Your task to perform on an android device: change notifications settings Image 0: 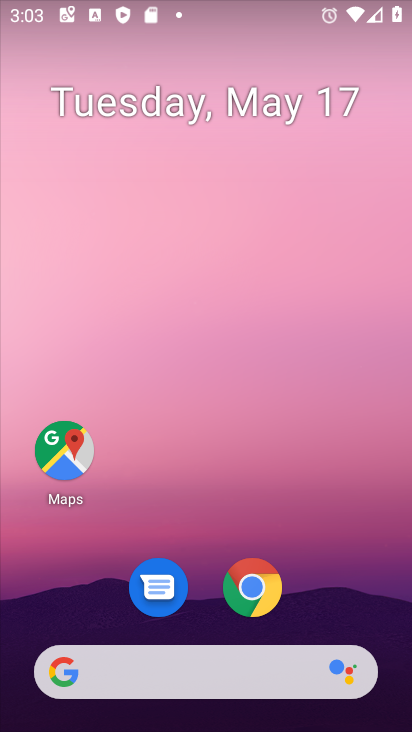
Step 0: drag from (216, 624) to (255, 153)
Your task to perform on an android device: change notifications settings Image 1: 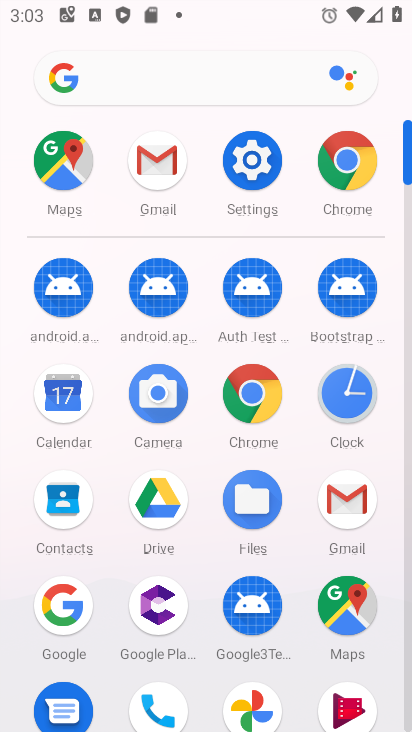
Step 1: click (246, 156)
Your task to perform on an android device: change notifications settings Image 2: 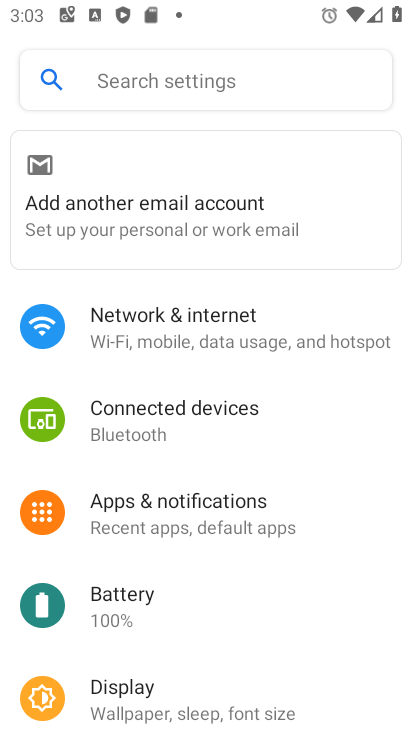
Step 2: click (194, 344)
Your task to perform on an android device: change notifications settings Image 3: 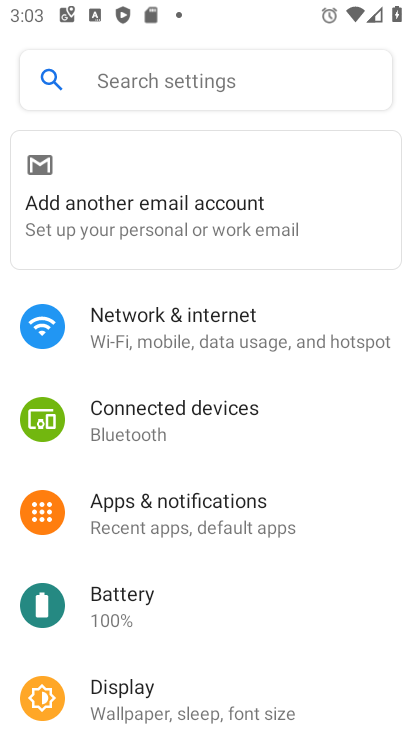
Step 3: click (193, 343)
Your task to perform on an android device: change notifications settings Image 4: 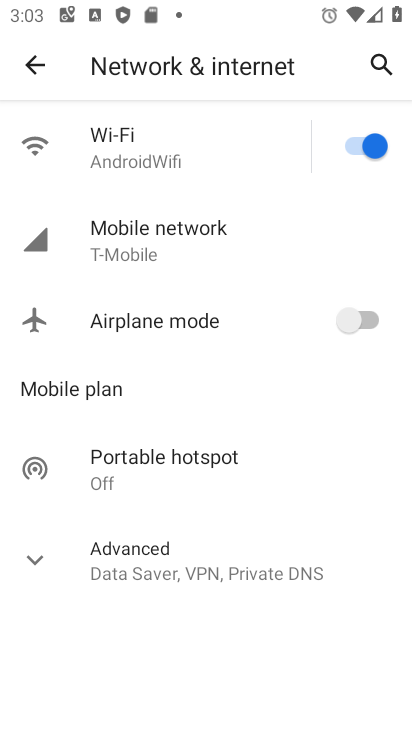
Step 4: click (35, 60)
Your task to perform on an android device: change notifications settings Image 5: 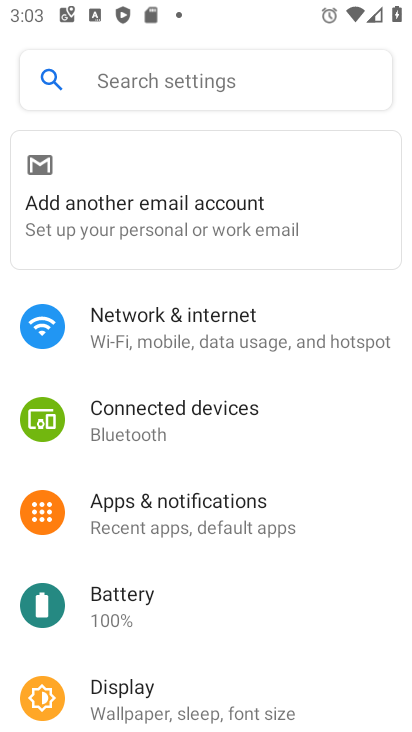
Step 5: click (229, 504)
Your task to perform on an android device: change notifications settings Image 6: 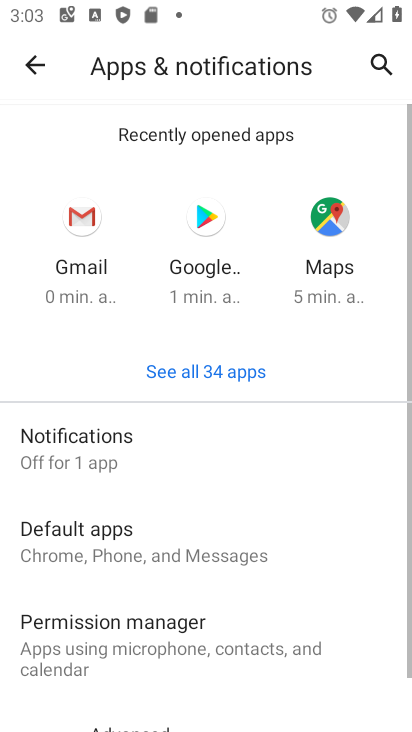
Step 6: drag from (265, 572) to (322, 215)
Your task to perform on an android device: change notifications settings Image 7: 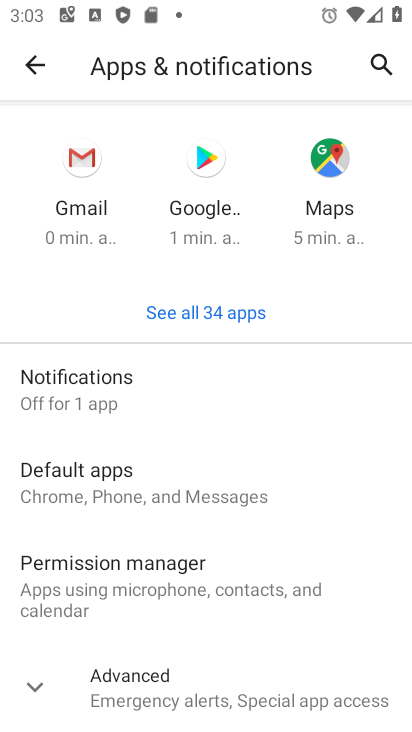
Step 7: click (170, 395)
Your task to perform on an android device: change notifications settings Image 8: 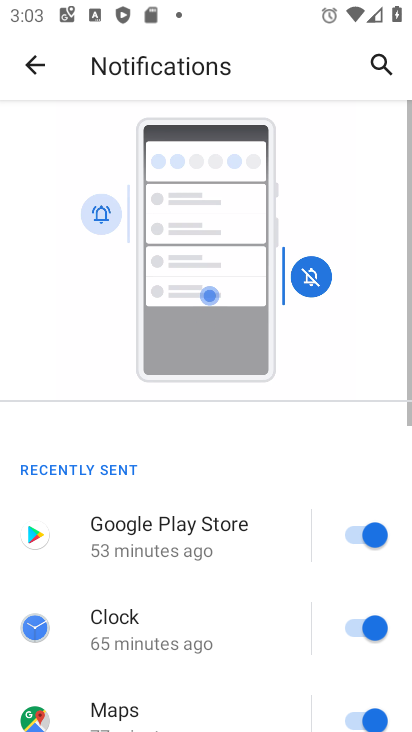
Step 8: drag from (225, 620) to (329, 234)
Your task to perform on an android device: change notifications settings Image 9: 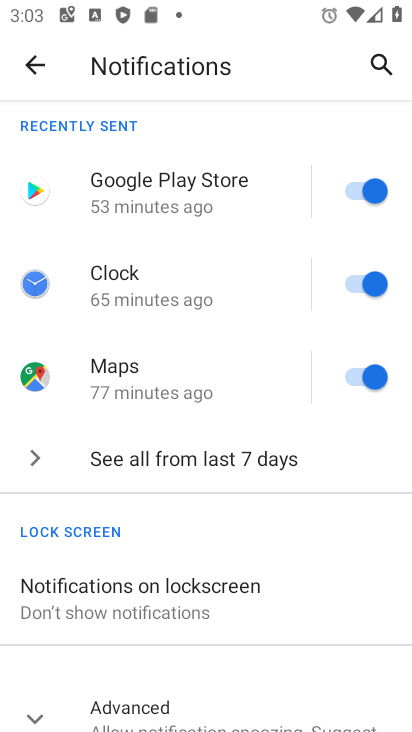
Step 9: click (381, 376)
Your task to perform on an android device: change notifications settings Image 10: 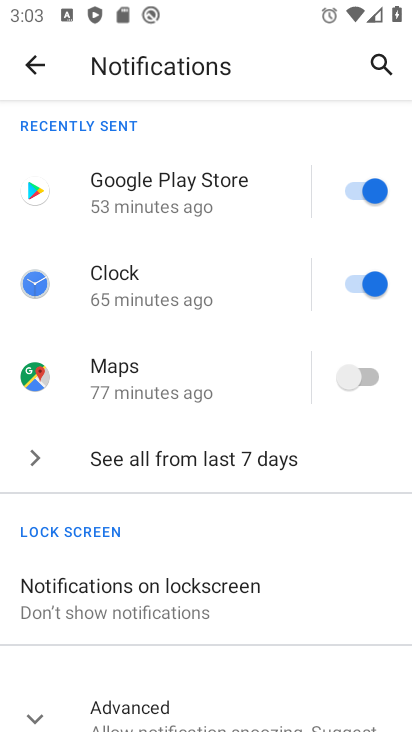
Step 10: task complete